Your task to perform on an android device: Go to sound settings Image 0: 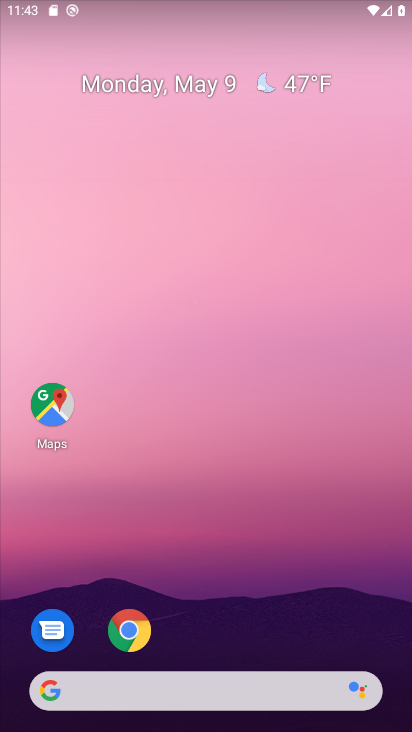
Step 0: drag from (154, 455) to (90, 186)
Your task to perform on an android device: Go to sound settings Image 1: 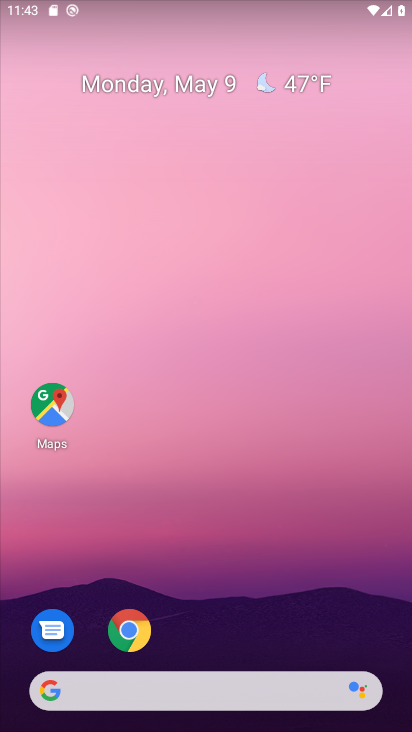
Step 1: drag from (197, 576) to (114, 25)
Your task to perform on an android device: Go to sound settings Image 2: 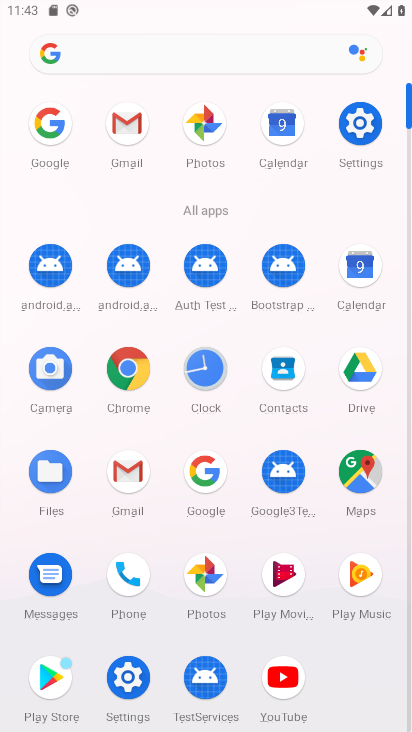
Step 2: click (350, 126)
Your task to perform on an android device: Go to sound settings Image 3: 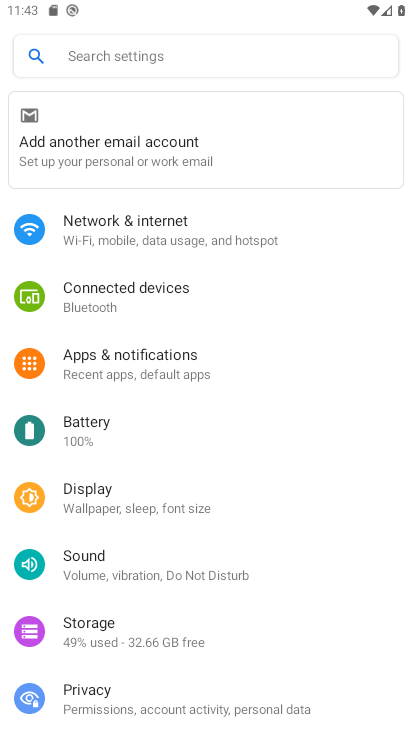
Step 3: click (117, 575)
Your task to perform on an android device: Go to sound settings Image 4: 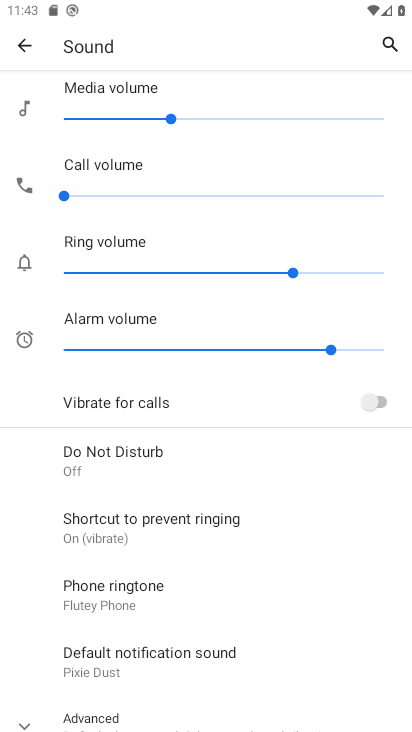
Step 4: task complete